Your task to perform on an android device: set an alarm Image 0: 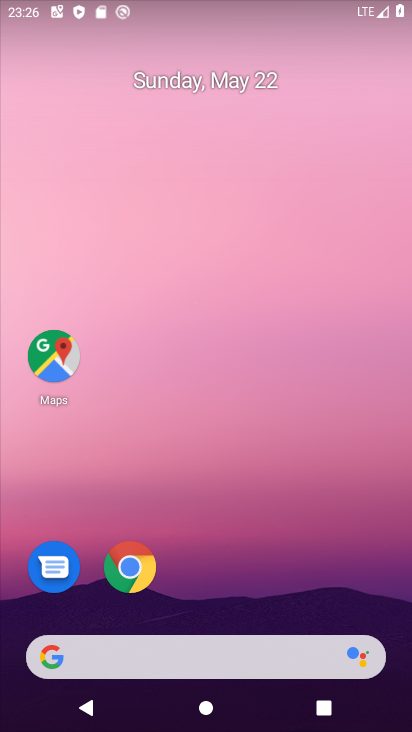
Step 0: drag from (274, 466) to (263, 0)
Your task to perform on an android device: set an alarm Image 1: 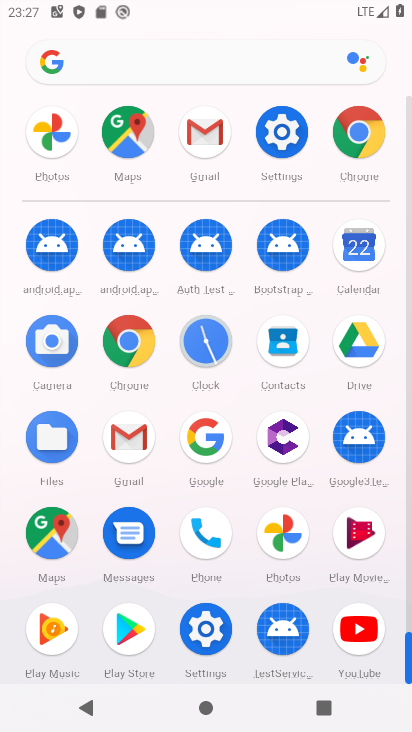
Step 1: drag from (18, 554) to (14, 255)
Your task to perform on an android device: set an alarm Image 2: 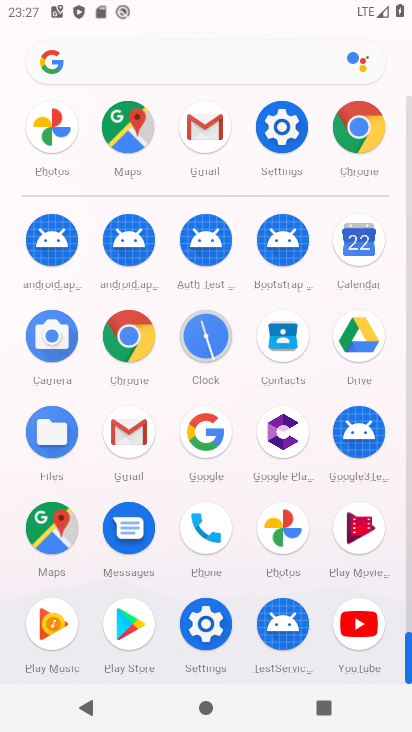
Step 2: click (203, 325)
Your task to perform on an android device: set an alarm Image 3: 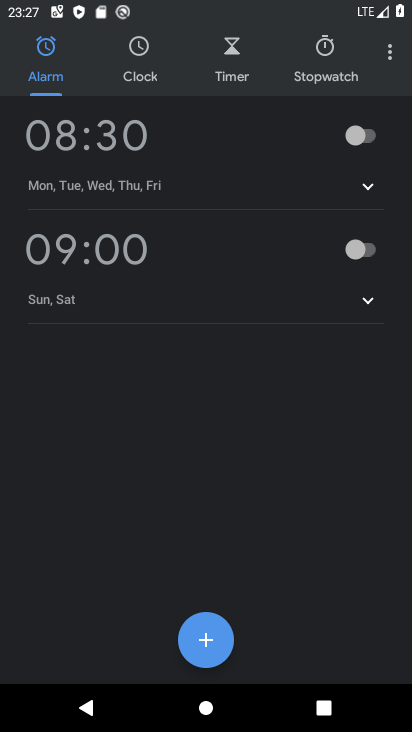
Step 3: click (217, 634)
Your task to perform on an android device: set an alarm Image 4: 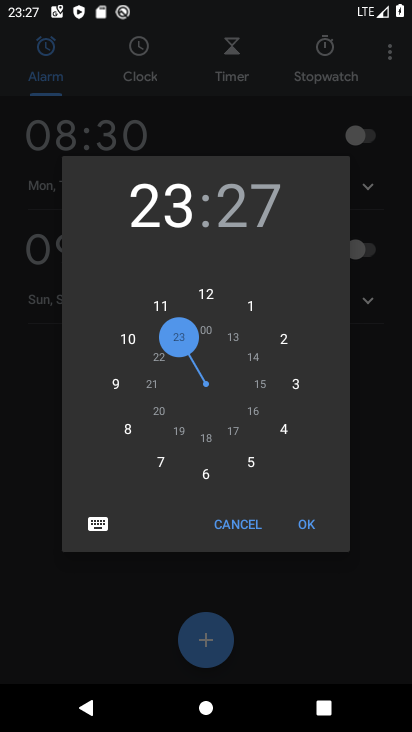
Step 4: click (302, 521)
Your task to perform on an android device: set an alarm Image 5: 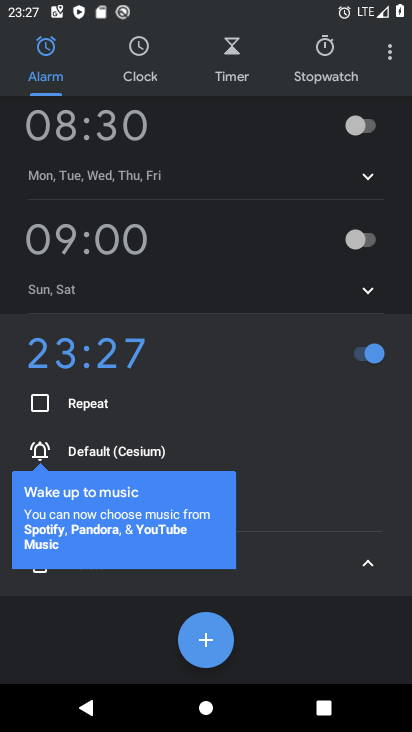
Step 5: task complete